Your task to perform on an android device: find photos in the google photos app Image 0: 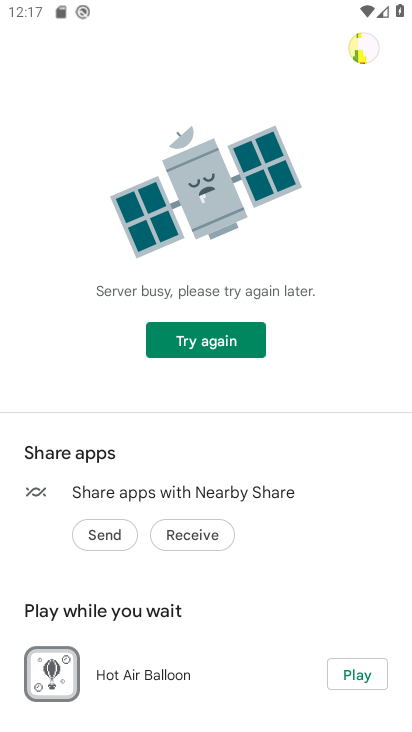
Step 0: press home button
Your task to perform on an android device: find photos in the google photos app Image 1: 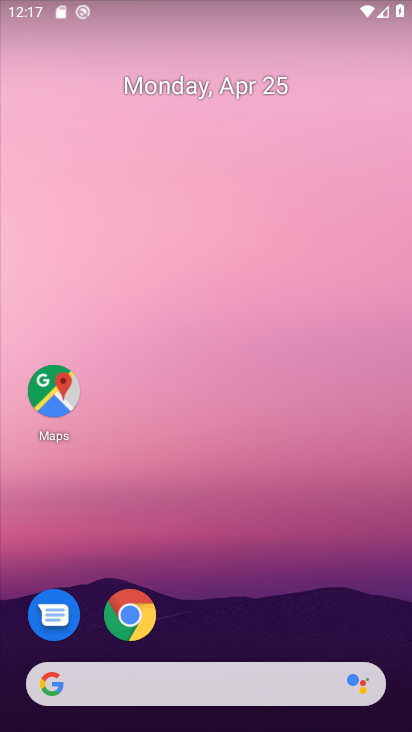
Step 1: drag from (229, 661) to (222, 44)
Your task to perform on an android device: find photos in the google photos app Image 2: 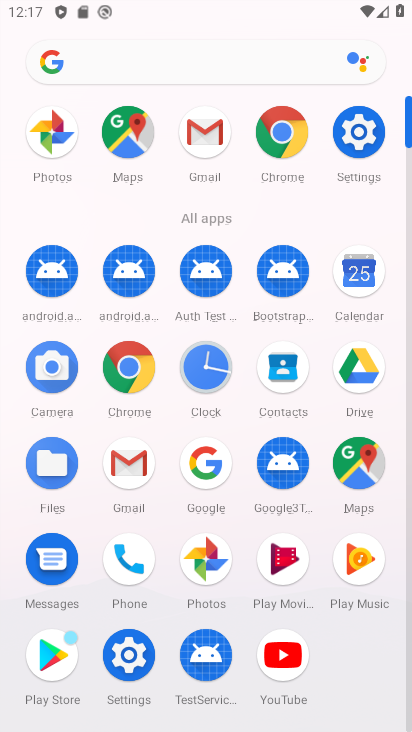
Step 2: click (217, 556)
Your task to perform on an android device: find photos in the google photos app Image 3: 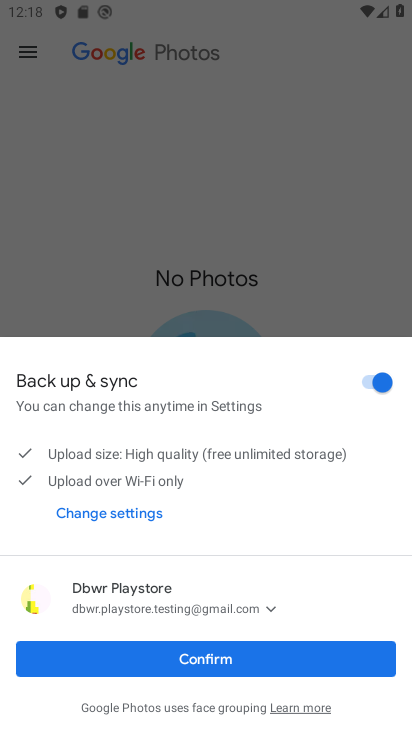
Step 3: click (213, 654)
Your task to perform on an android device: find photos in the google photos app Image 4: 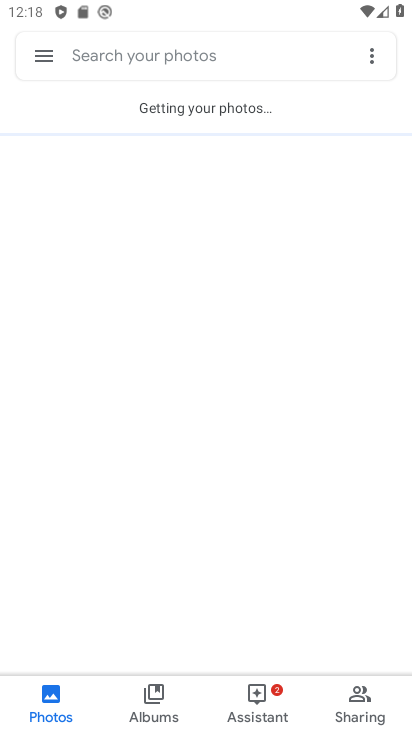
Step 4: click (154, 705)
Your task to perform on an android device: find photos in the google photos app Image 5: 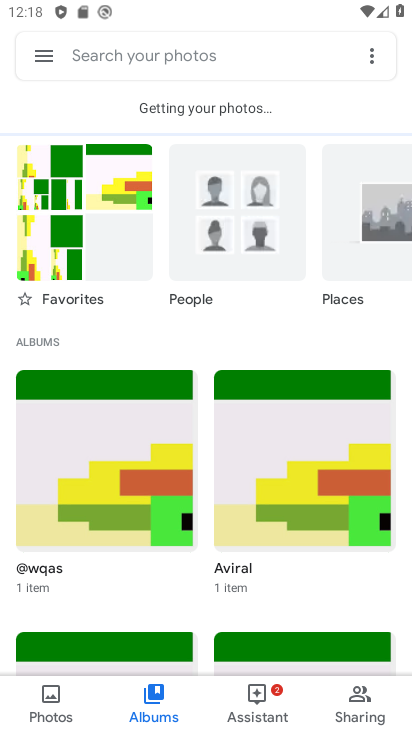
Step 5: click (62, 691)
Your task to perform on an android device: find photos in the google photos app Image 6: 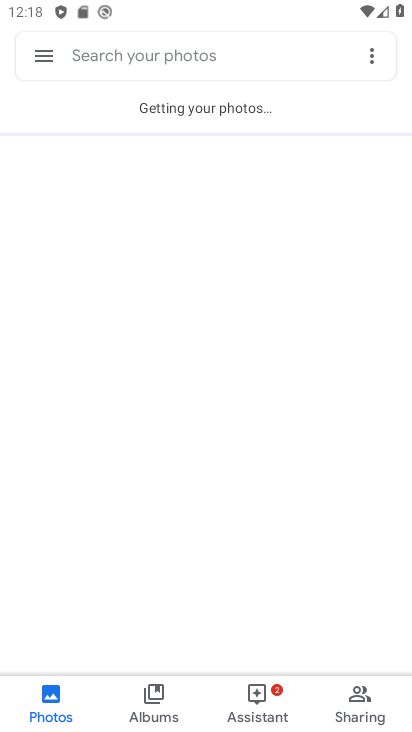
Step 6: click (140, 695)
Your task to perform on an android device: find photos in the google photos app Image 7: 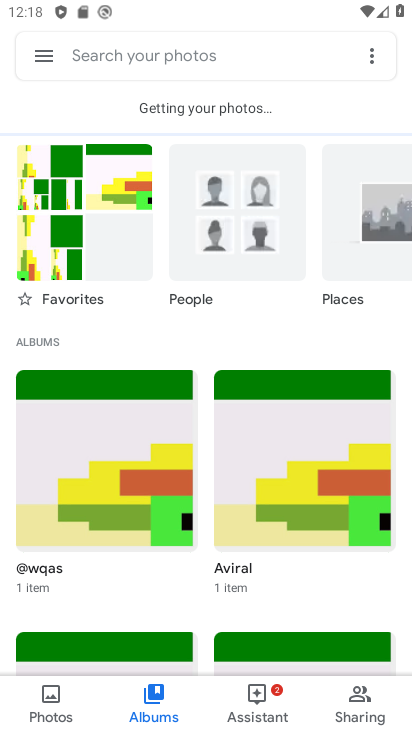
Step 7: click (78, 695)
Your task to perform on an android device: find photos in the google photos app Image 8: 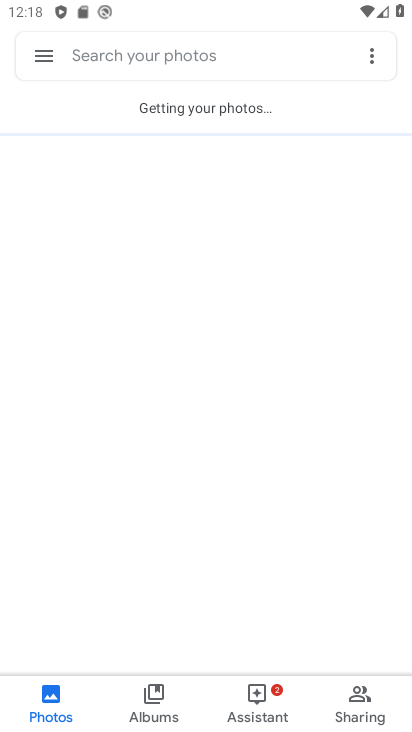
Step 8: drag from (143, 323) to (171, 561)
Your task to perform on an android device: find photos in the google photos app Image 9: 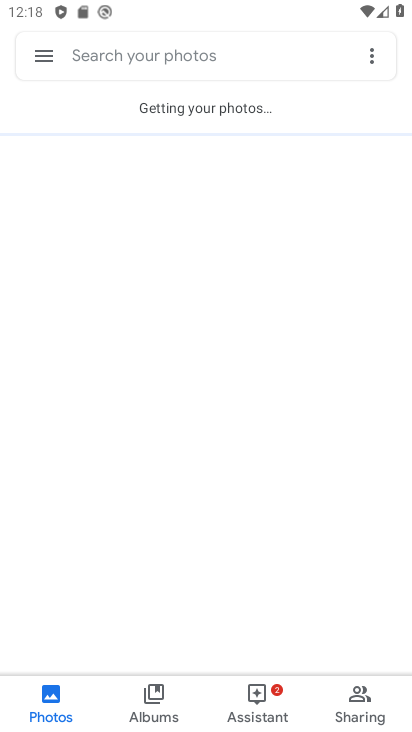
Step 9: click (170, 679)
Your task to perform on an android device: find photos in the google photos app Image 10: 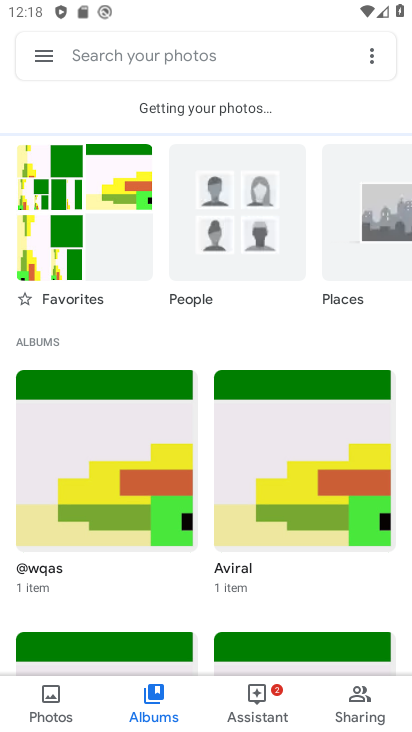
Step 10: click (271, 702)
Your task to perform on an android device: find photos in the google photos app Image 11: 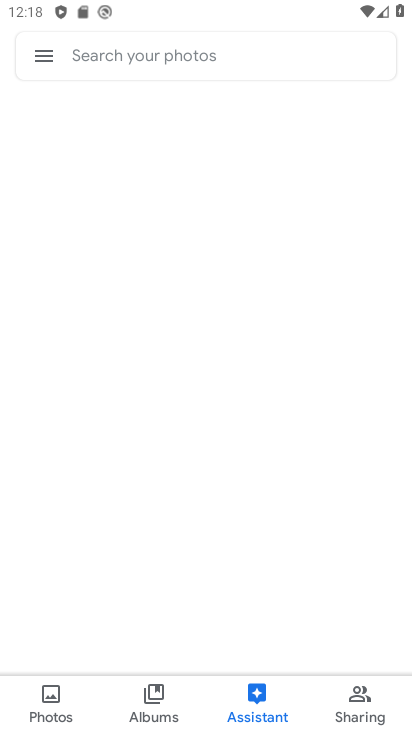
Step 11: click (167, 712)
Your task to perform on an android device: find photos in the google photos app Image 12: 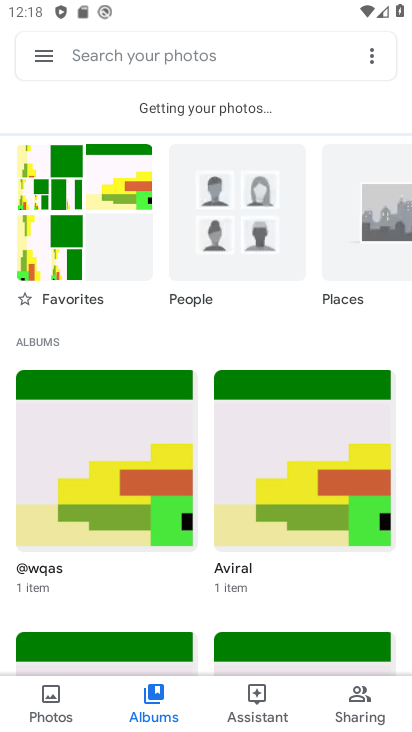
Step 12: task complete